Your task to perform on an android device: allow cookies in the chrome app Image 0: 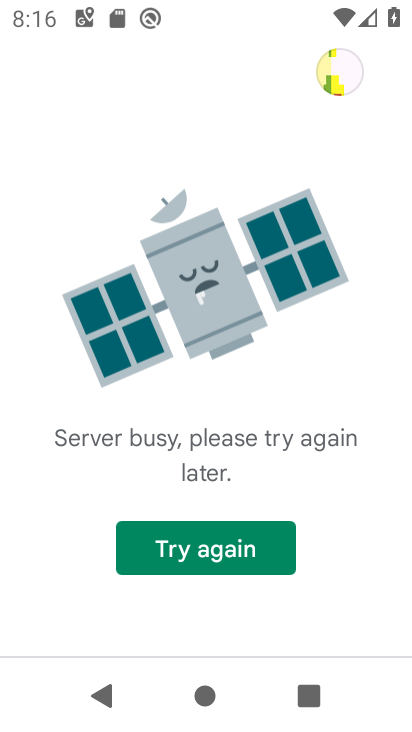
Step 0: press home button
Your task to perform on an android device: allow cookies in the chrome app Image 1: 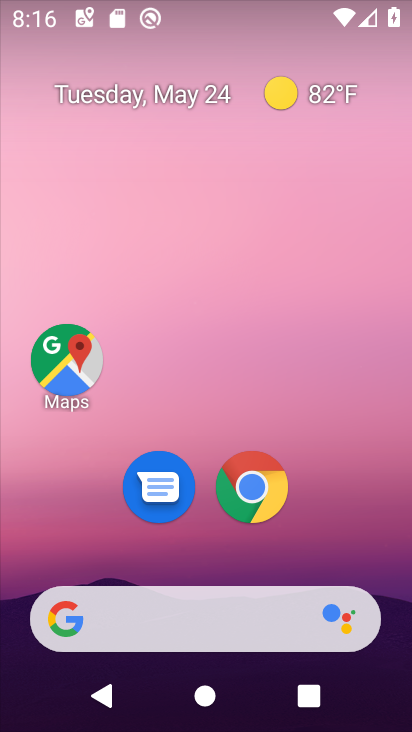
Step 1: drag from (386, 480) to (350, 195)
Your task to perform on an android device: allow cookies in the chrome app Image 2: 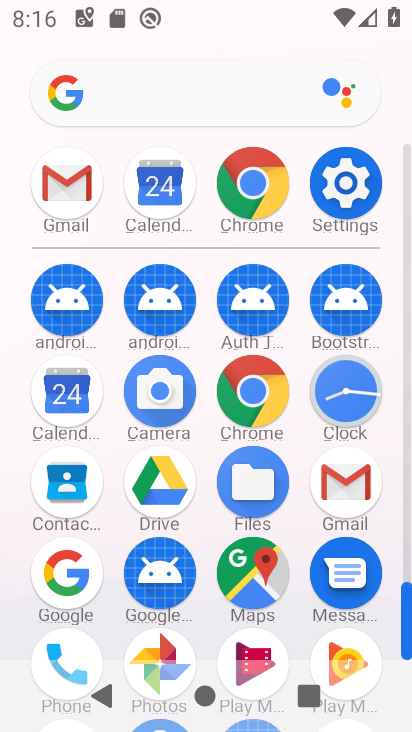
Step 2: click (252, 394)
Your task to perform on an android device: allow cookies in the chrome app Image 3: 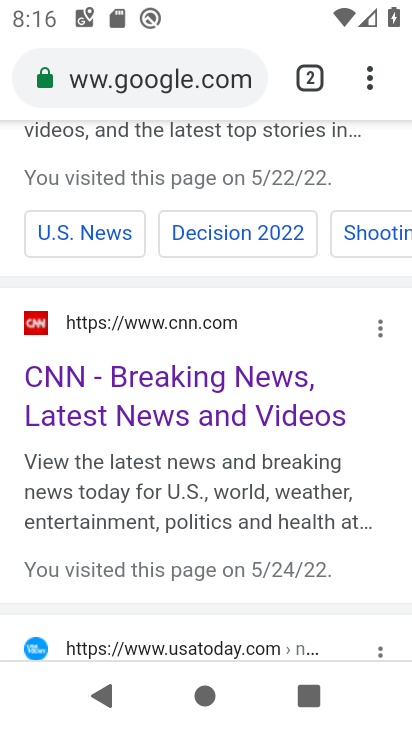
Step 3: drag from (370, 93) to (96, 559)
Your task to perform on an android device: allow cookies in the chrome app Image 4: 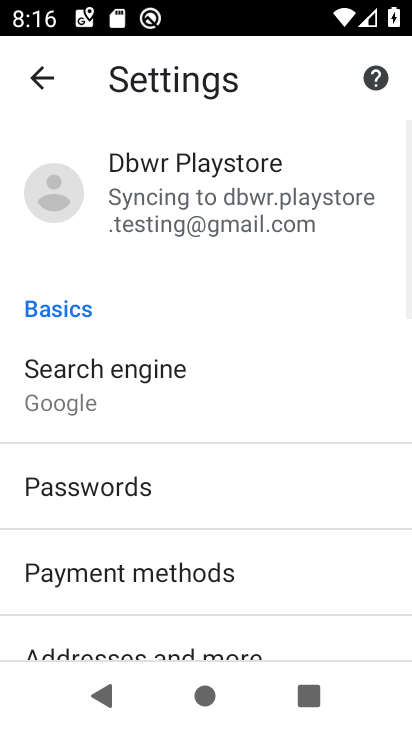
Step 4: drag from (219, 565) to (240, 261)
Your task to perform on an android device: allow cookies in the chrome app Image 5: 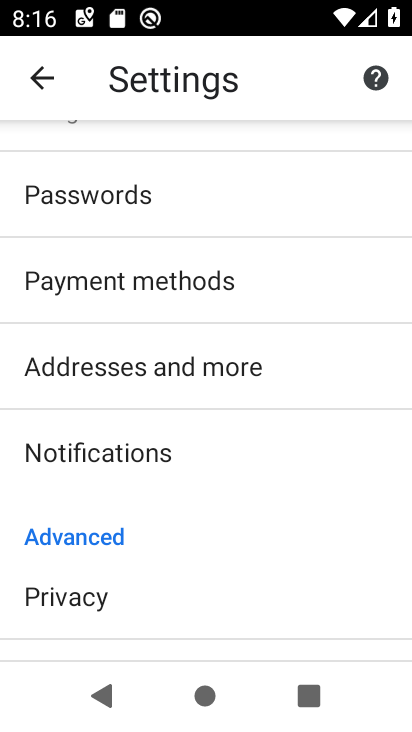
Step 5: drag from (267, 539) to (284, 124)
Your task to perform on an android device: allow cookies in the chrome app Image 6: 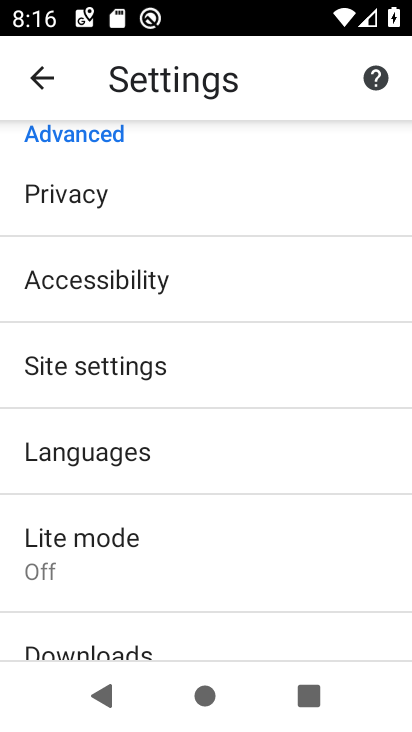
Step 6: drag from (271, 542) to (302, 275)
Your task to perform on an android device: allow cookies in the chrome app Image 7: 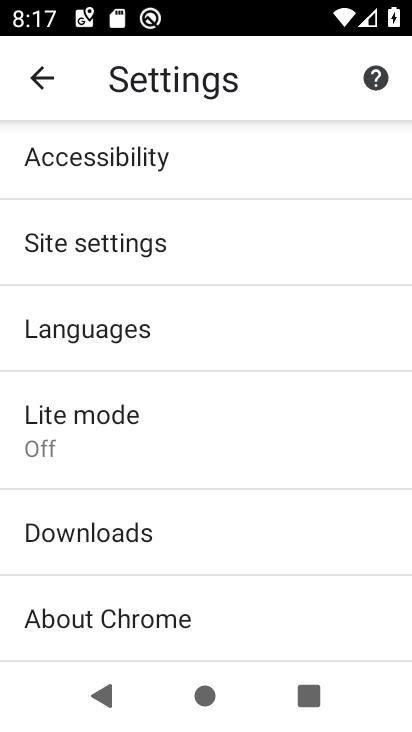
Step 7: click (170, 254)
Your task to perform on an android device: allow cookies in the chrome app Image 8: 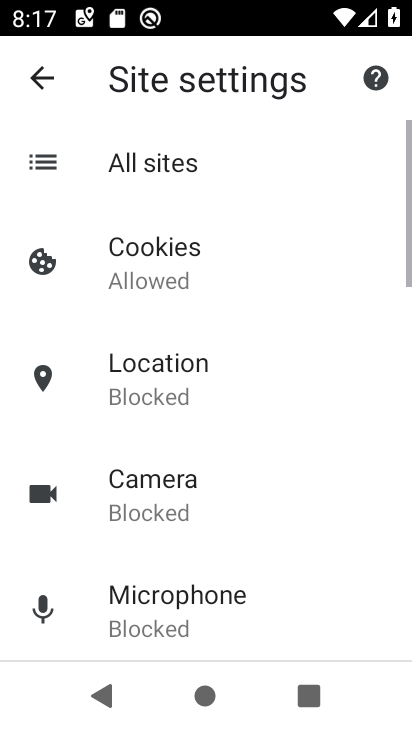
Step 8: click (175, 257)
Your task to perform on an android device: allow cookies in the chrome app Image 9: 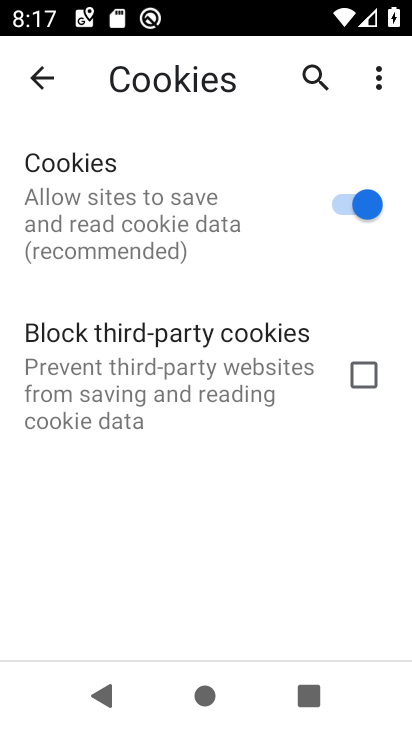
Step 9: task complete